Your task to perform on an android device: Go to privacy settings Image 0: 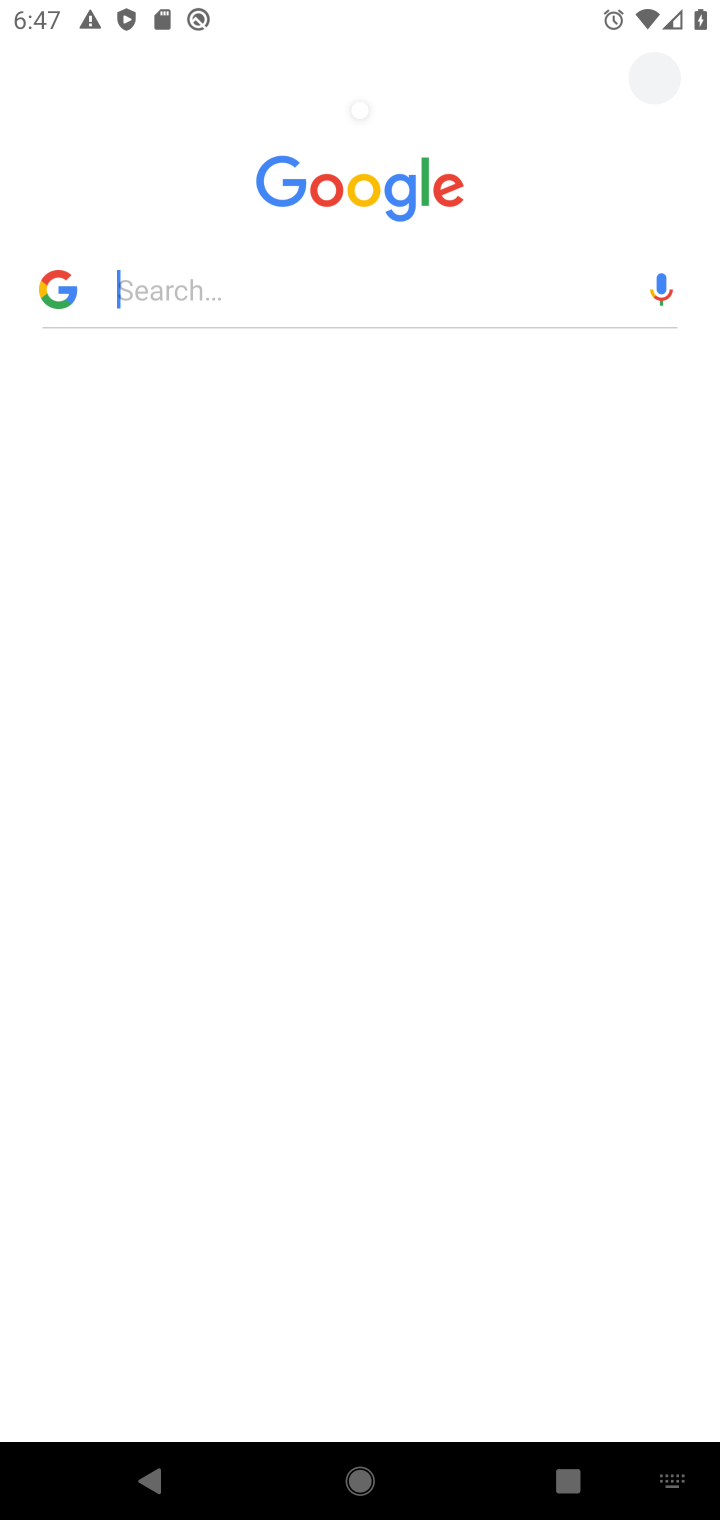
Step 0: press home button
Your task to perform on an android device: Go to privacy settings Image 1: 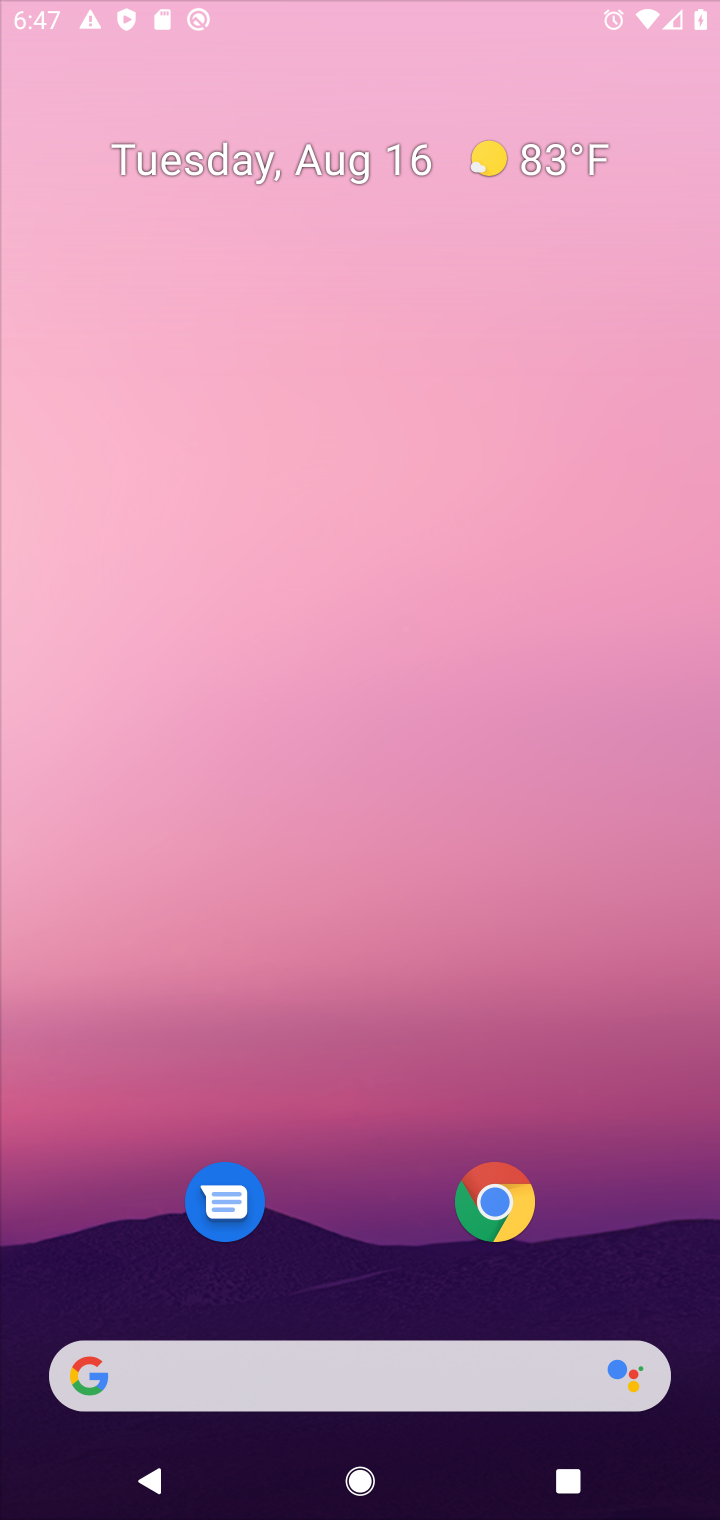
Step 1: drag from (675, 1245) to (374, 77)
Your task to perform on an android device: Go to privacy settings Image 2: 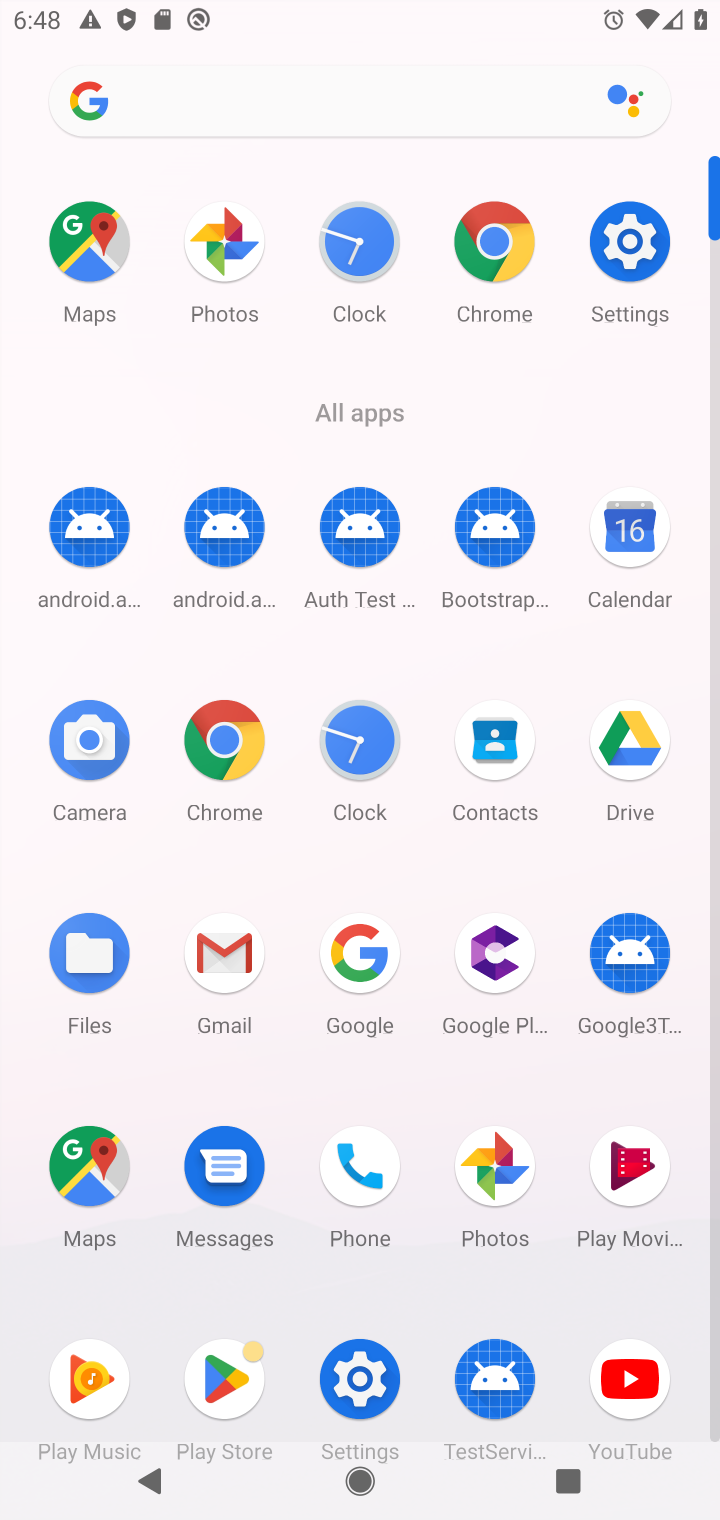
Step 2: click (358, 1400)
Your task to perform on an android device: Go to privacy settings Image 3: 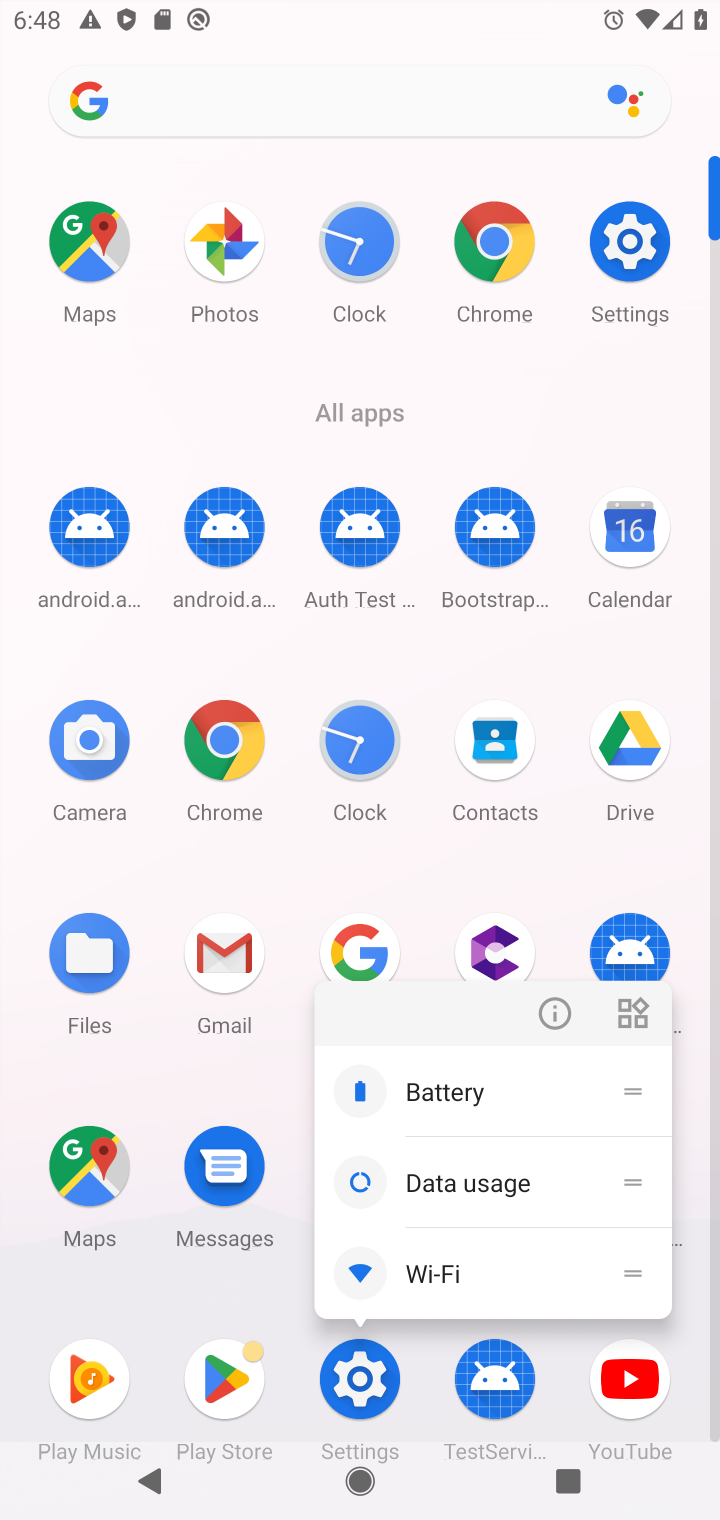
Step 3: click (358, 1400)
Your task to perform on an android device: Go to privacy settings Image 4: 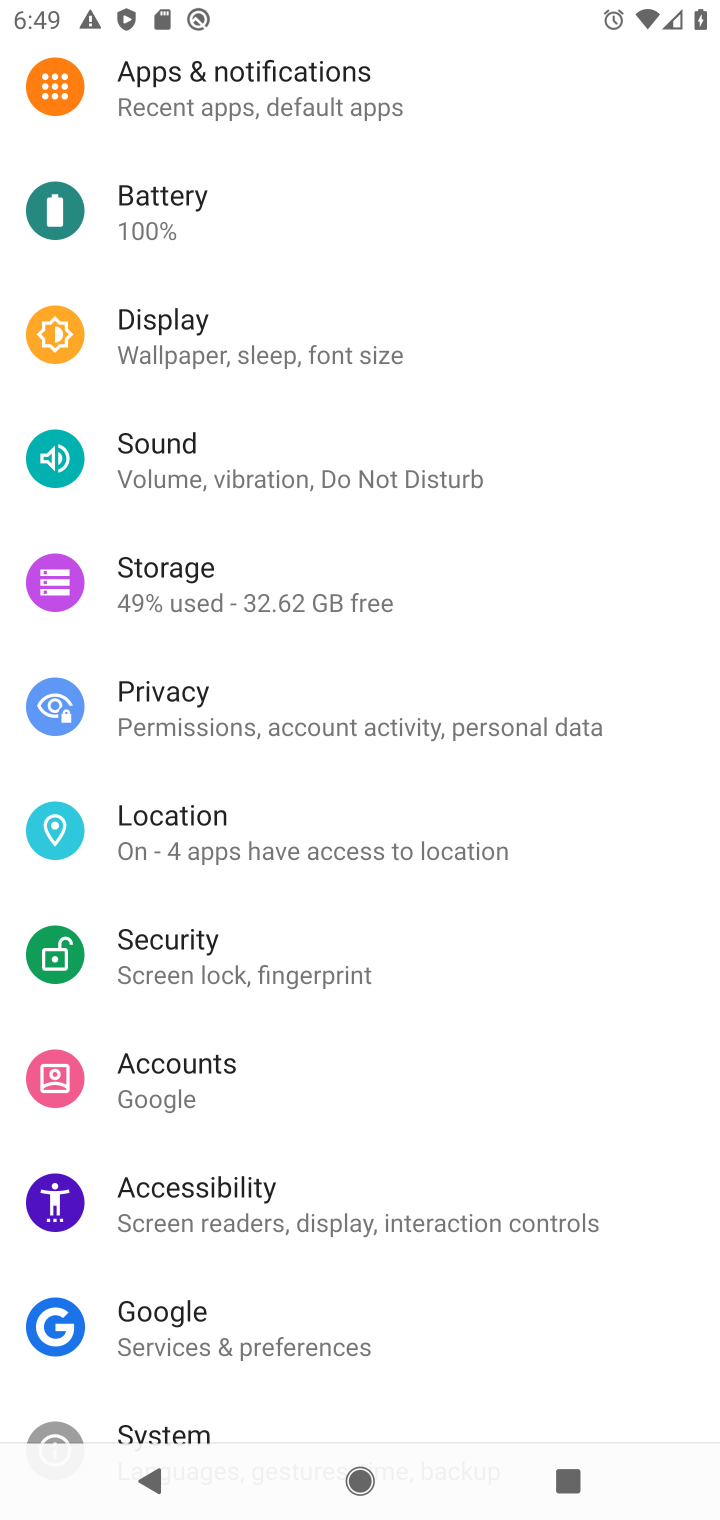
Step 4: click (232, 706)
Your task to perform on an android device: Go to privacy settings Image 5: 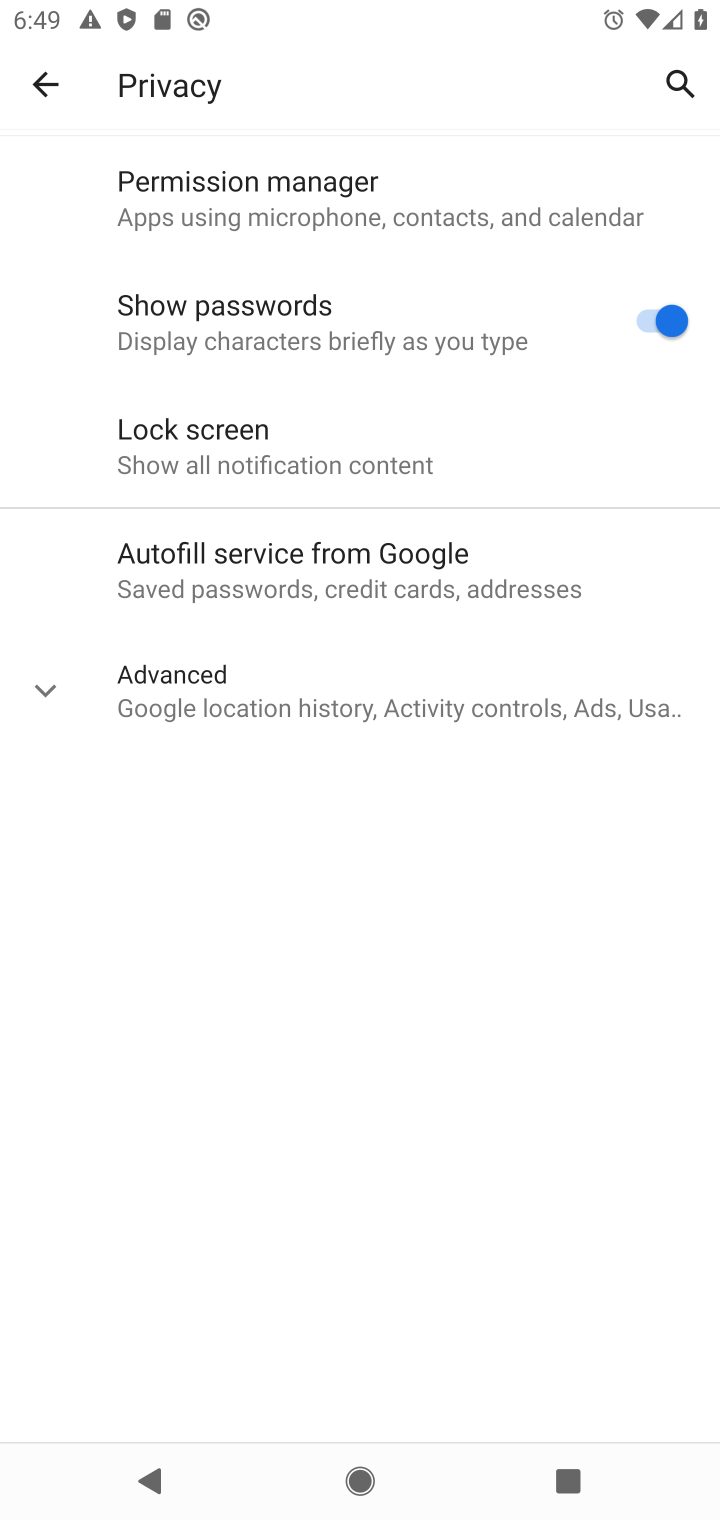
Step 5: task complete